Your task to perform on an android device: turn on javascript in the chrome app Image 0: 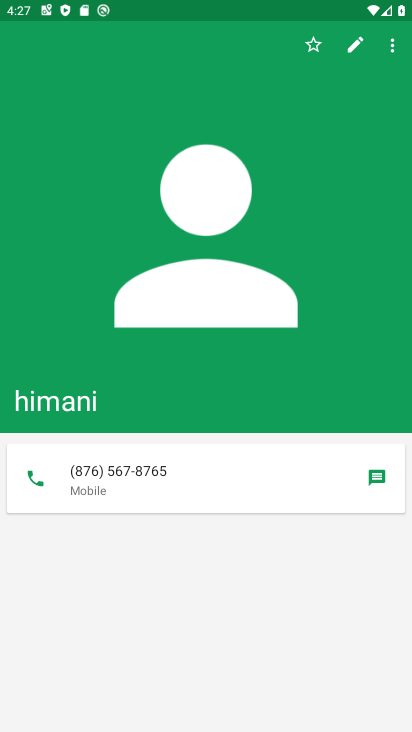
Step 0: press home button
Your task to perform on an android device: turn on javascript in the chrome app Image 1: 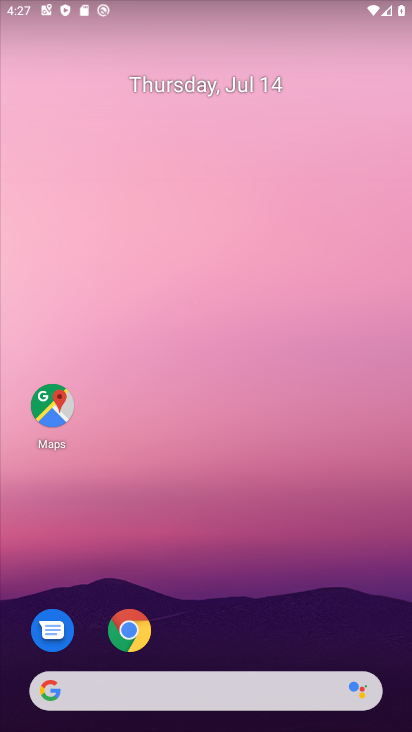
Step 1: drag from (306, 682) to (393, 28)
Your task to perform on an android device: turn on javascript in the chrome app Image 2: 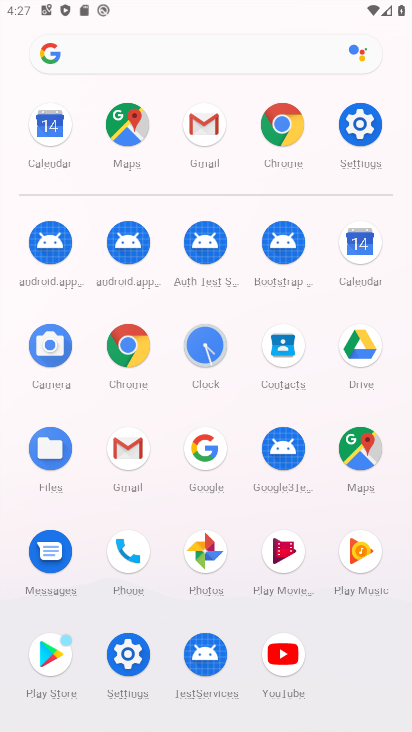
Step 2: click (111, 346)
Your task to perform on an android device: turn on javascript in the chrome app Image 3: 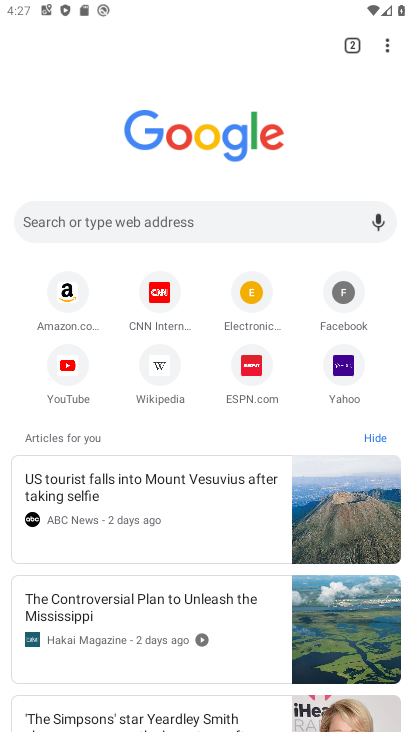
Step 3: click (382, 39)
Your task to perform on an android device: turn on javascript in the chrome app Image 4: 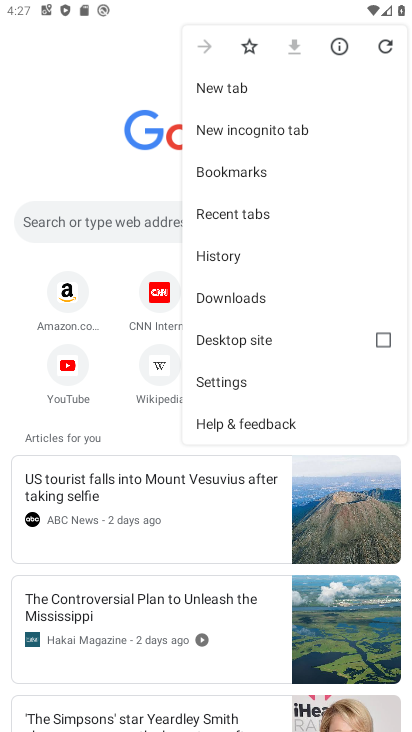
Step 4: click (267, 373)
Your task to perform on an android device: turn on javascript in the chrome app Image 5: 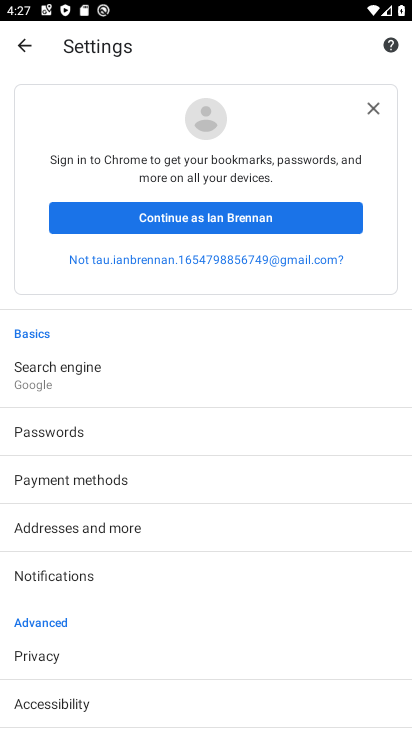
Step 5: drag from (184, 621) to (195, 302)
Your task to perform on an android device: turn on javascript in the chrome app Image 6: 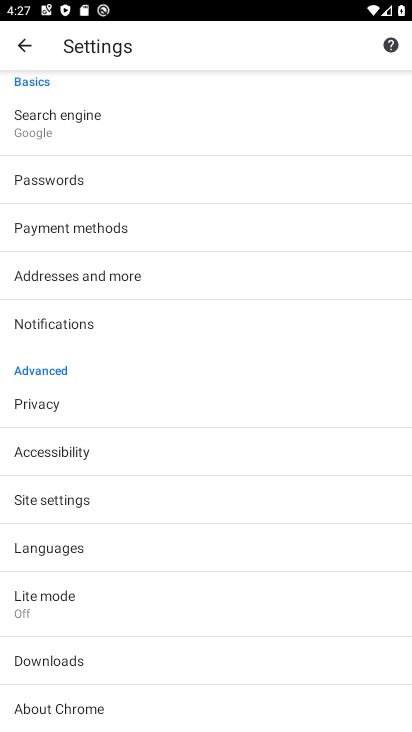
Step 6: click (107, 510)
Your task to perform on an android device: turn on javascript in the chrome app Image 7: 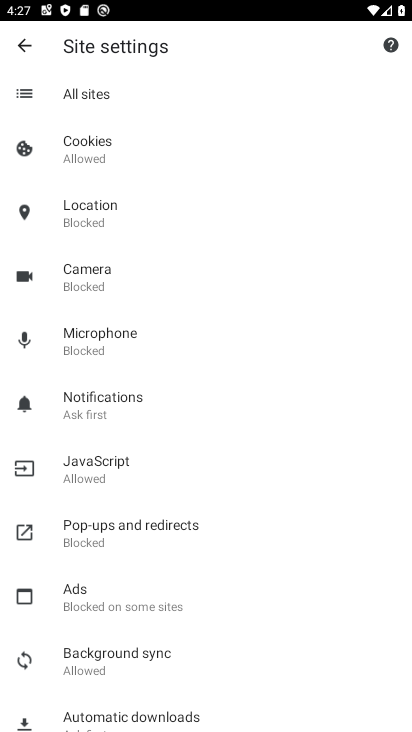
Step 7: click (92, 467)
Your task to perform on an android device: turn on javascript in the chrome app Image 8: 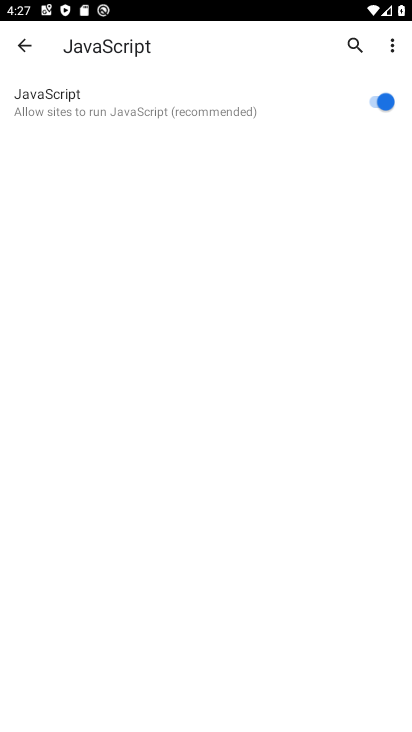
Step 8: click (123, 477)
Your task to perform on an android device: turn on javascript in the chrome app Image 9: 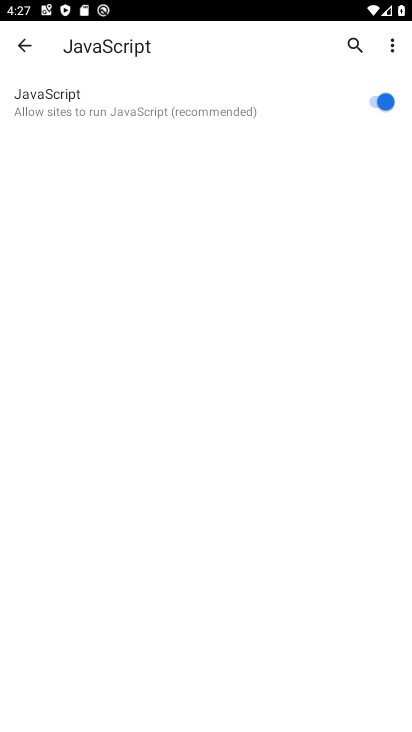
Step 9: task complete